Your task to perform on an android device: turn on javascript in the chrome app Image 0: 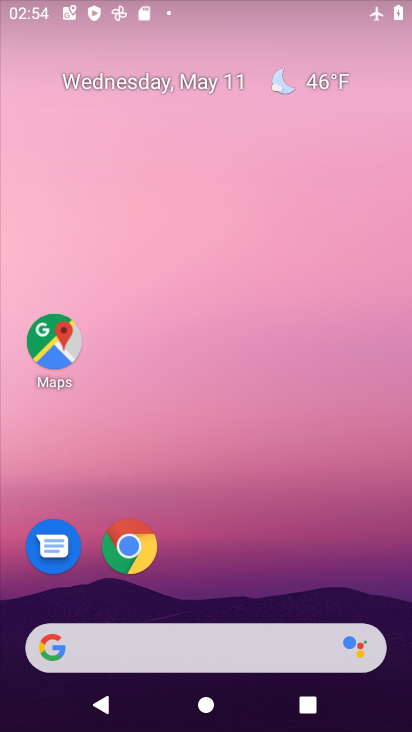
Step 0: drag from (187, 594) to (272, 220)
Your task to perform on an android device: turn on javascript in the chrome app Image 1: 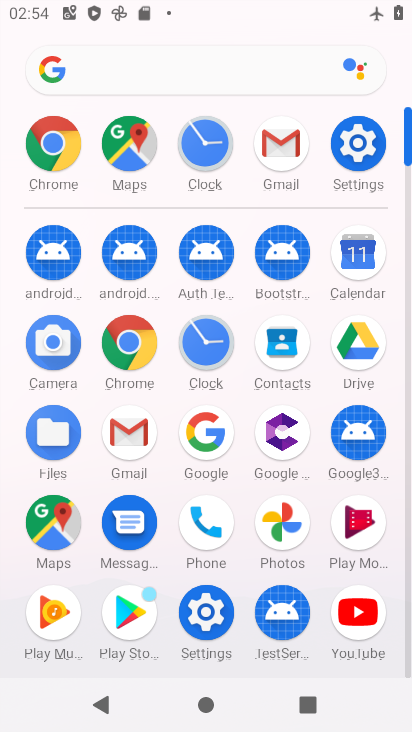
Step 1: click (125, 337)
Your task to perform on an android device: turn on javascript in the chrome app Image 2: 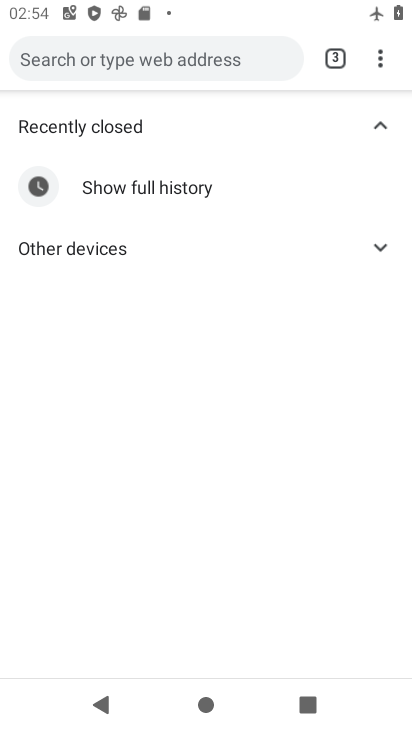
Step 2: drag from (380, 67) to (218, 503)
Your task to perform on an android device: turn on javascript in the chrome app Image 3: 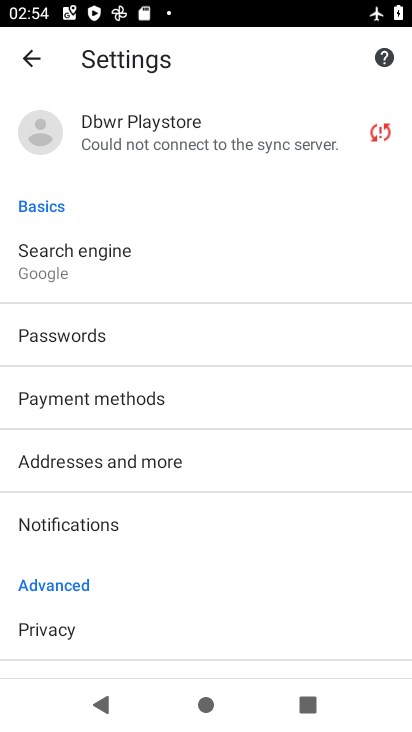
Step 3: drag from (204, 584) to (262, 257)
Your task to perform on an android device: turn on javascript in the chrome app Image 4: 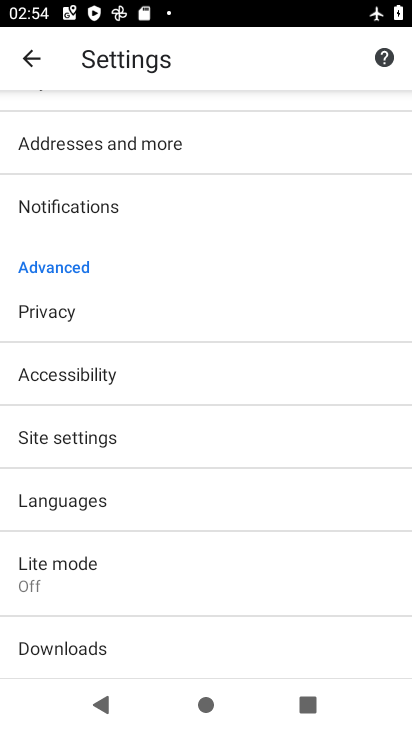
Step 4: click (113, 444)
Your task to perform on an android device: turn on javascript in the chrome app Image 5: 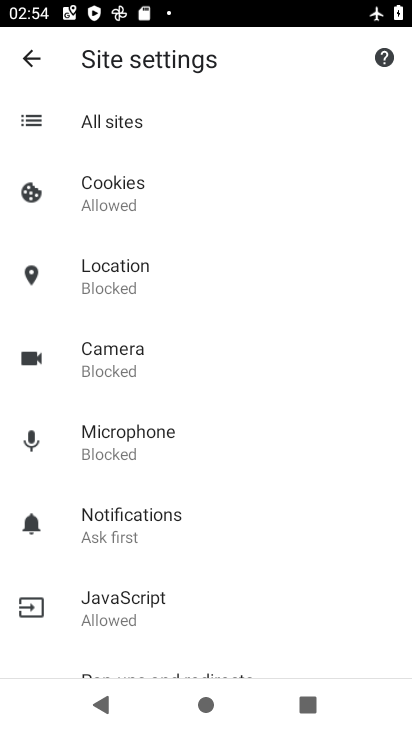
Step 5: click (183, 599)
Your task to perform on an android device: turn on javascript in the chrome app Image 6: 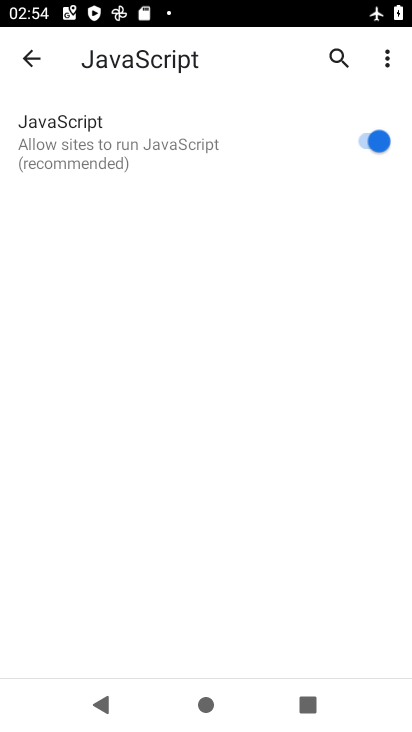
Step 6: task complete